Your task to perform on an android device: toggle improve location accuracy Image 0: 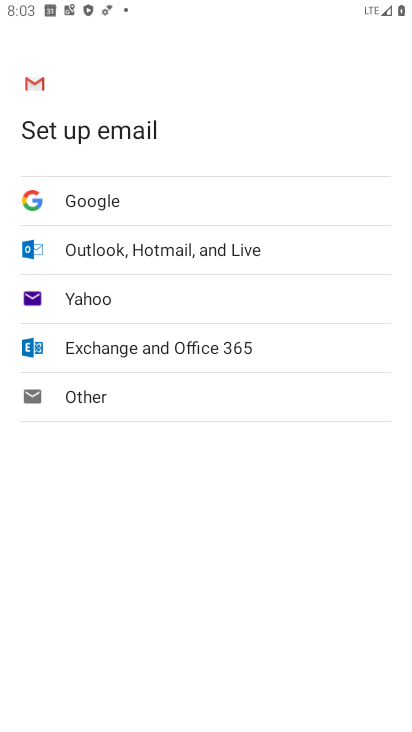
Step 0: press home button
Your task to perform on an android device: toggle improve location accuracy Image 1: 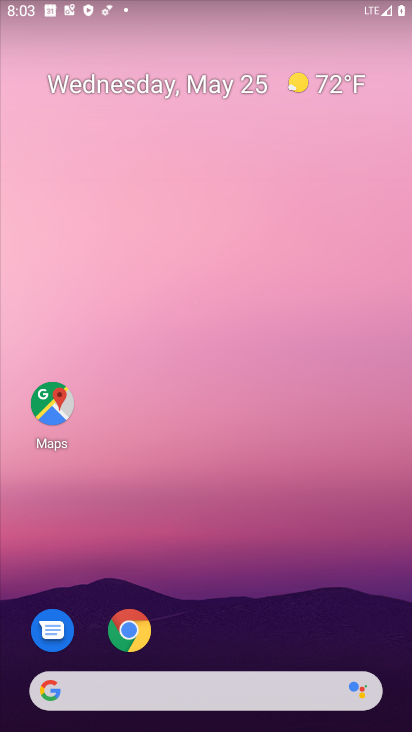
Step 1: drag from (200, 640) to (224, 173)
Your task to perform on an android device: toggle improve location accuracy Image 2: 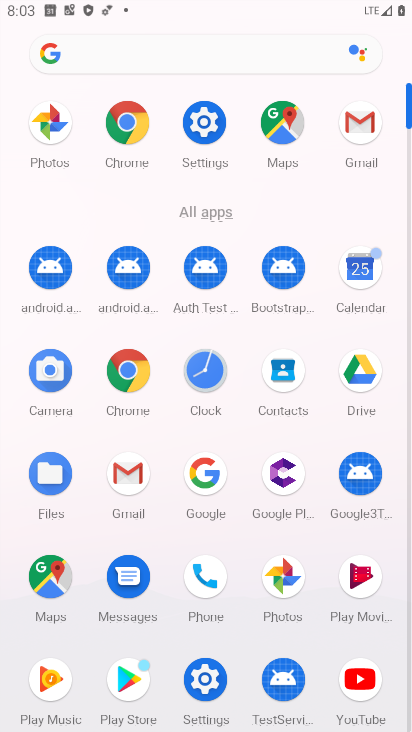
Step 2: click (214, 129)
Your task to perform on an android device: toggle improve location accuracy Image 3: 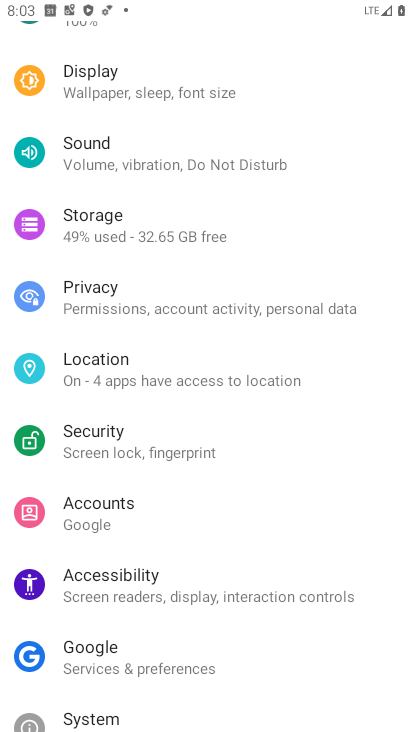
Step 3: click (154, 388)
Your task to perform on an android device: toggle improve location accuracy Image 4: 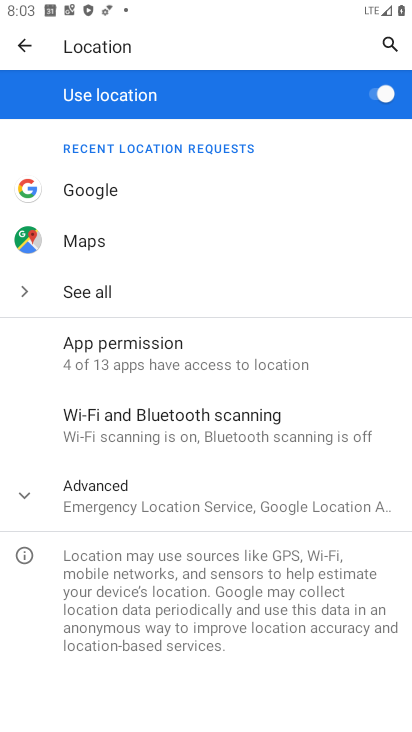
Step 4: click (177, 488)
Your task to perform on an android device: toggle improve location accuracy Image 5: 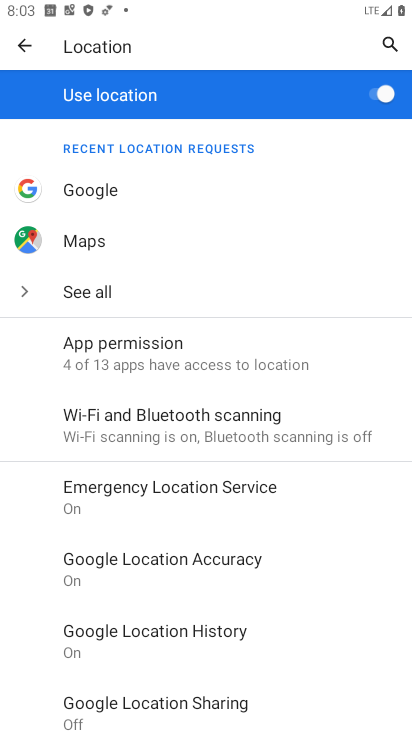
Step 5: click (208, 573)
Your task to perform on an android device: toggle improve location accuracy Image 6: 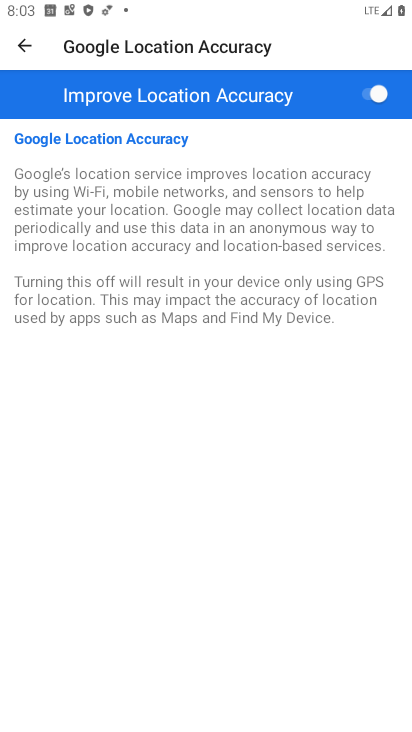
Step 6: click (362, 96)
Your task to perform on an android device: toggle improve location accuracy Image 7: 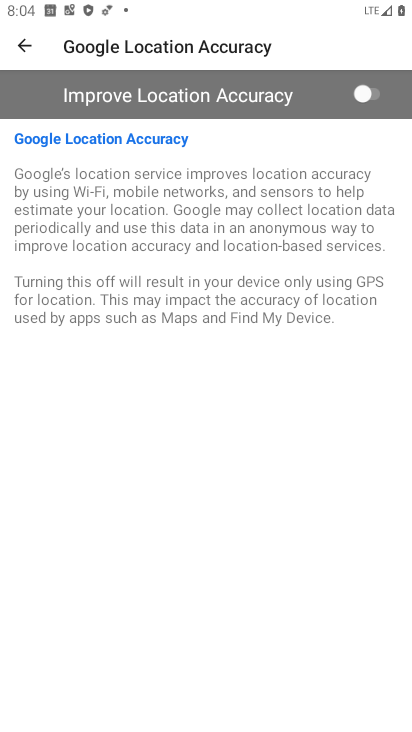
Step 7: task complete